Your task to perform on an android device: open app "Microsoft Outlook" (install if not already installed) and enter user name: "brand@gmail.com" and password: "persuasiveness" Image 0: 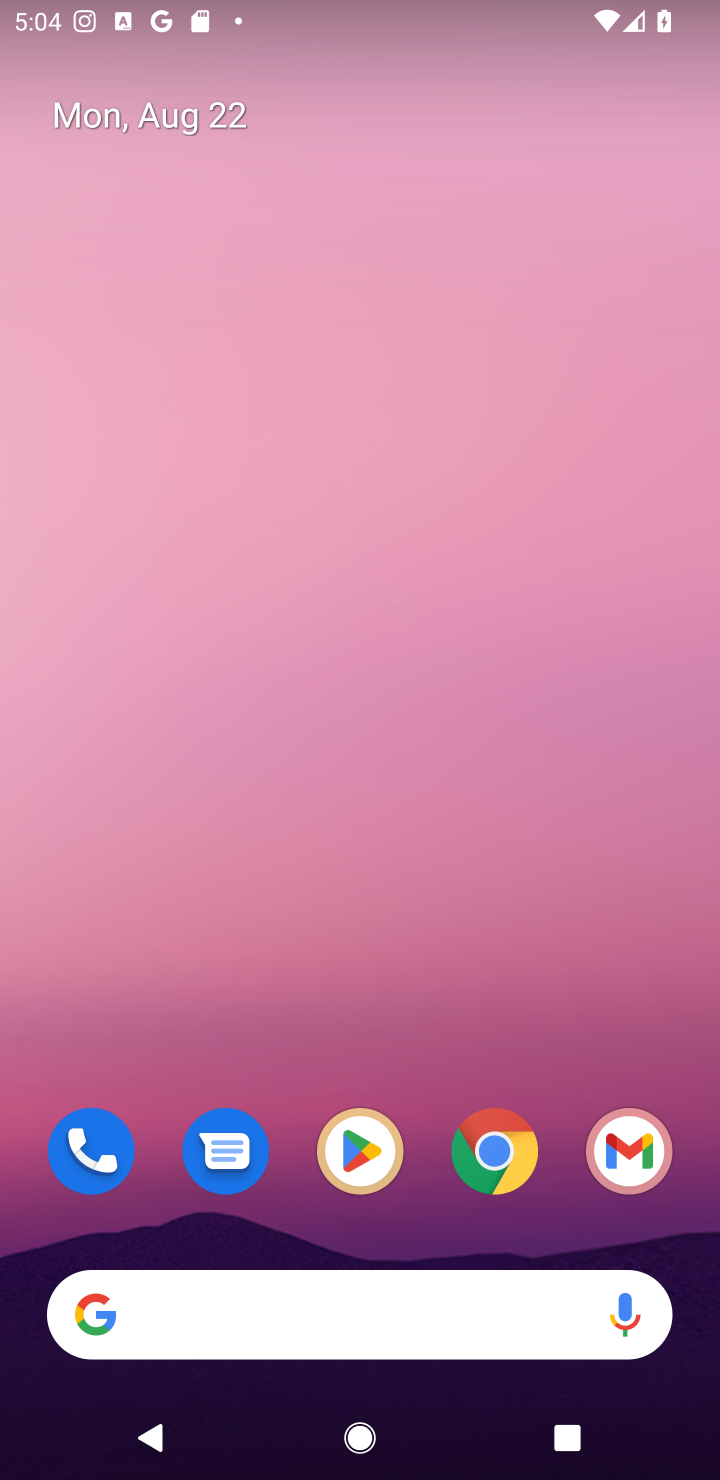
Step 0: click (371, 1167)
Your task to perform on an android device: open app "Microsoft Outlook" (install if not already installed) and enter user name: "brand@gmail.com" and password: "persuasiveness" Image 1: 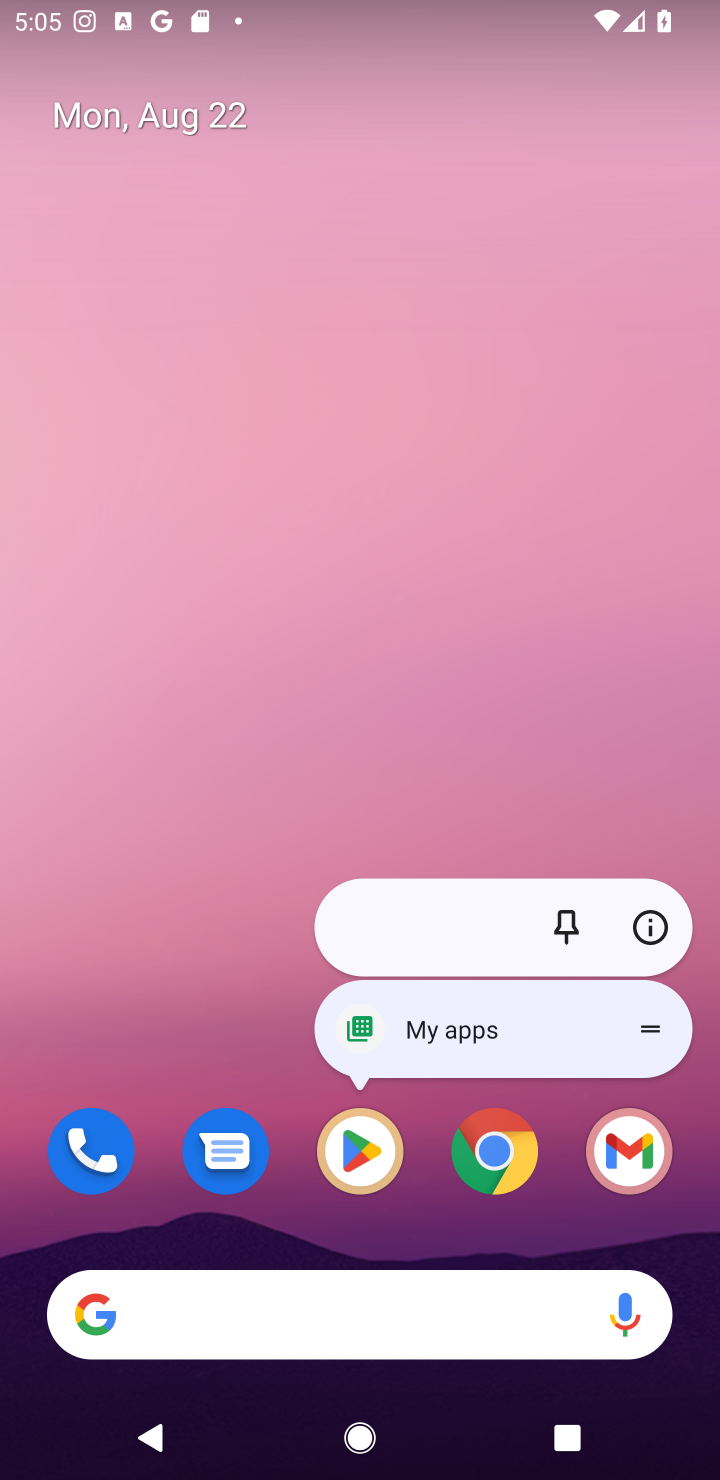
Step 1: click (358, 1163)
Your task to perform on an android device: open app "Microsoft Outlook" (install if not already installed) and enter user name: "brand@gmail.com" and password: "persuasiveness" Image 2: 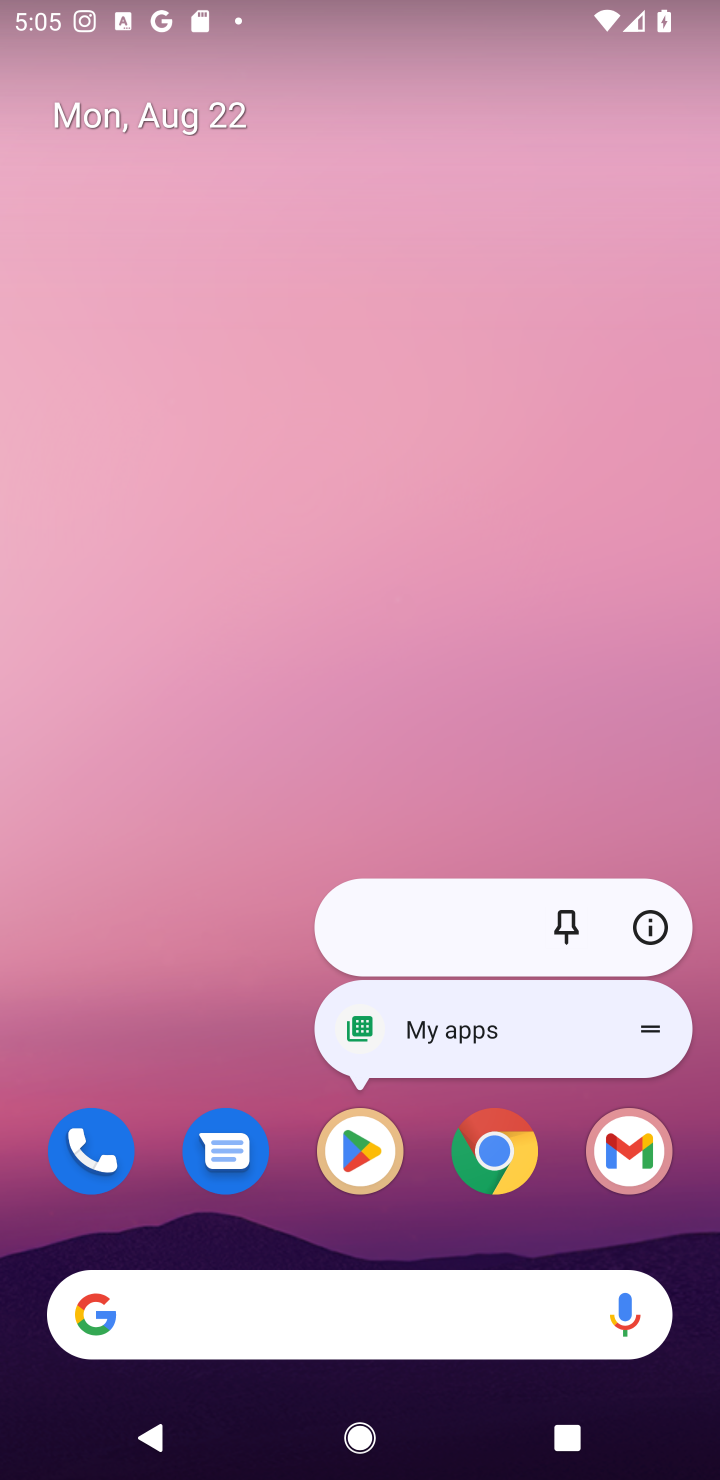
Step 2: click (358, 1167)
Your task to perform on an android device: open app "Microsoft Outlook" (install if not already installed) and enter user name: "brand@gmail.com" and password: "persuasiveness" Image 3: 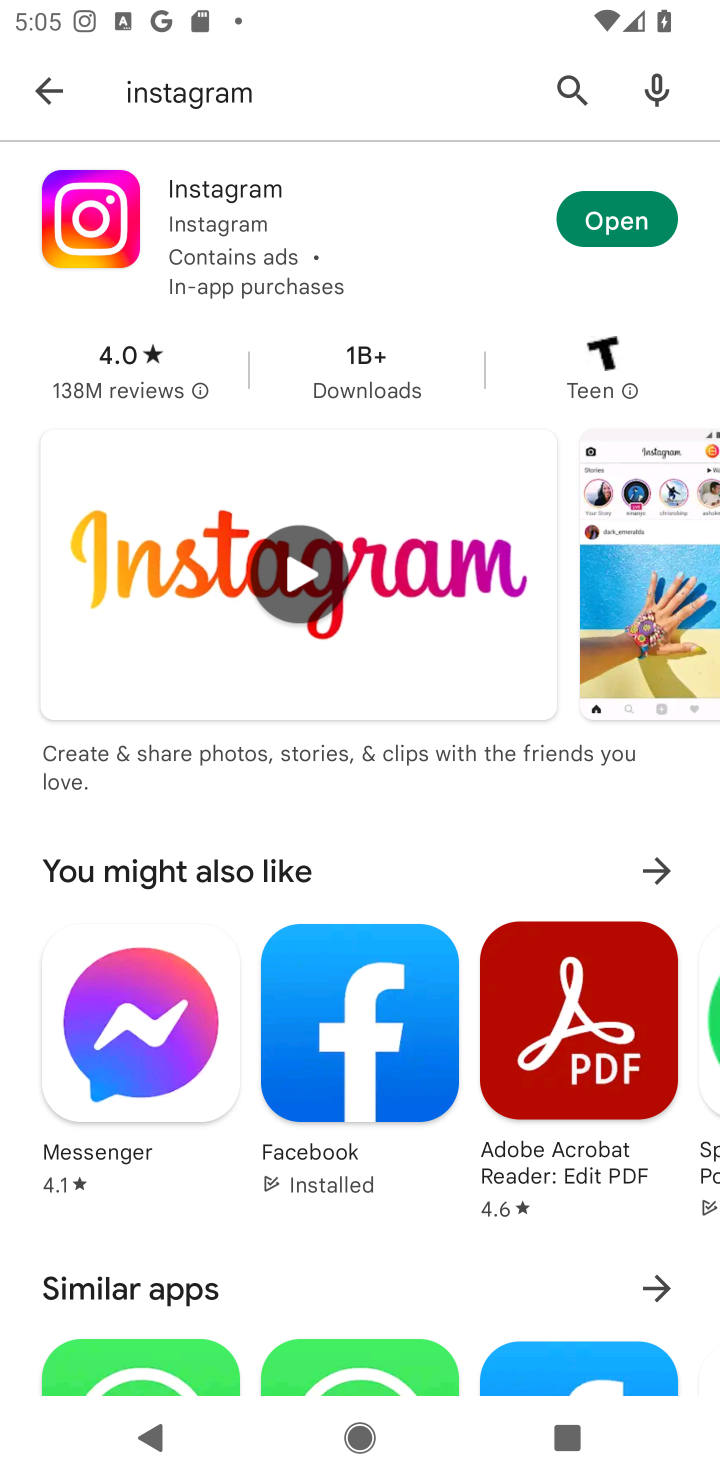
Step 3: click (561, 88)
Your task to perform on an android device: open app "Microsoft Outlook" (install if not already installed) and enter user name: "brand@gmail.com" and password: "persuasiveness" Image 4: 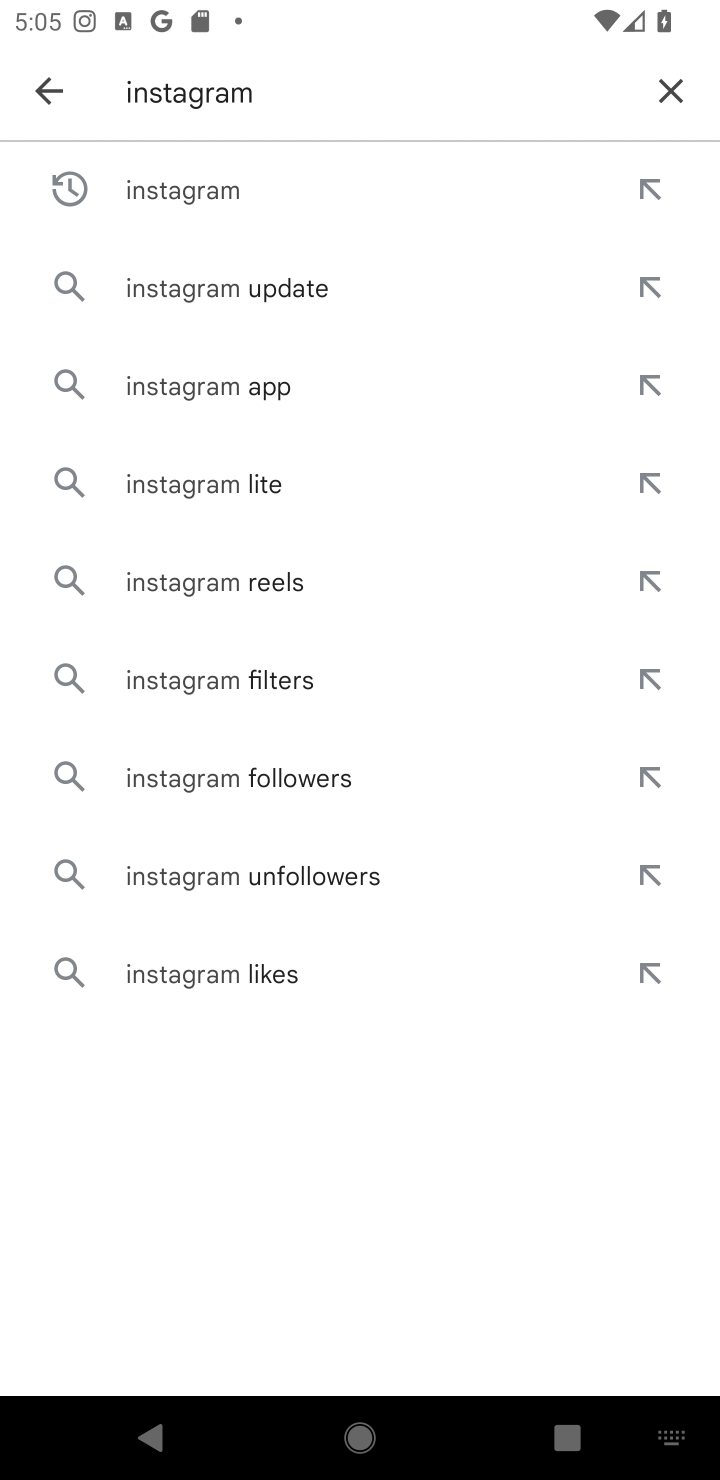
Step 4: click (664, 89)
Your task to perform on an android device: open app "Microsoft Outlook" (install if not already installed) and enter user name: "brand@gmail.com" and password: "persuasiveness" Image 5: 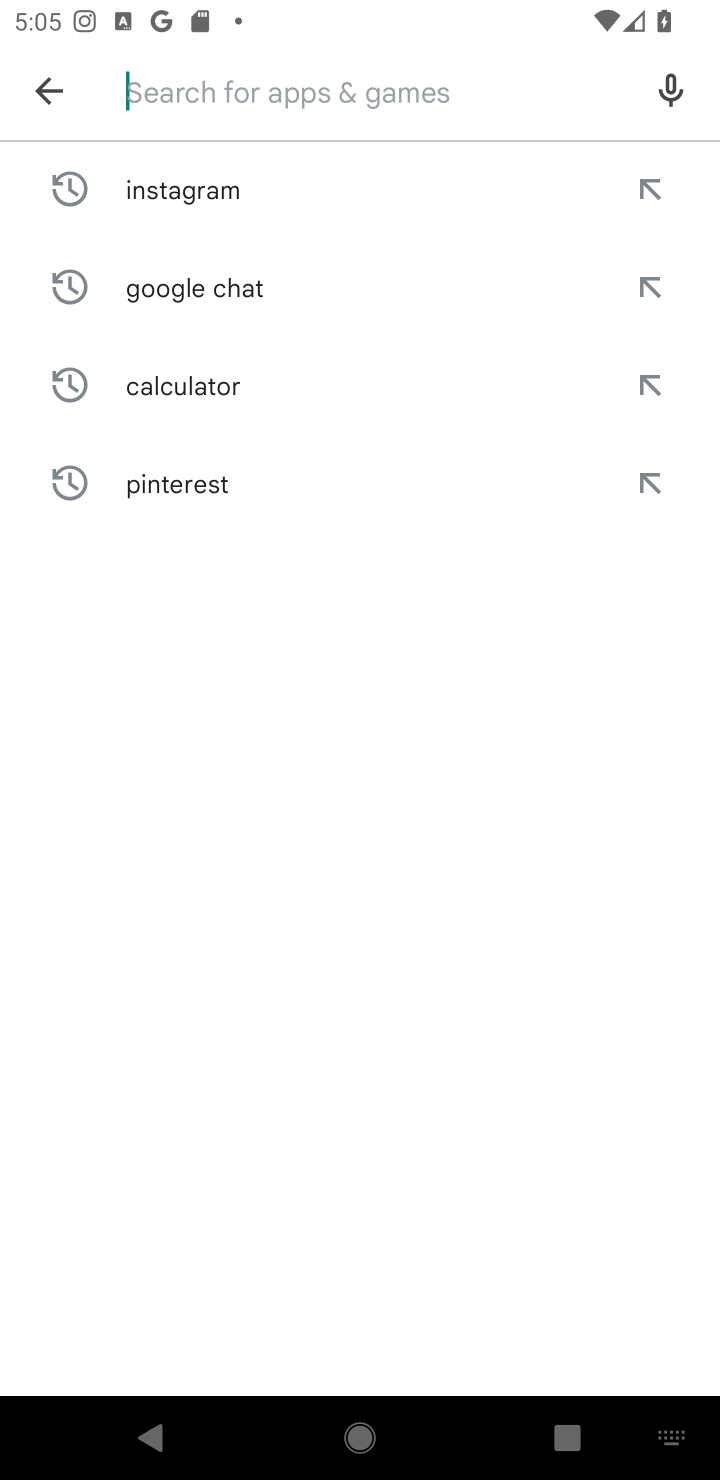
Step 5: type "Microsoft Outlook"
Your task to perform on an android device: open app "Microsoft Outlook" (install if not already installed) and enter user name: "brand@gmail.com" and password: "persuasiveness" Image 6: 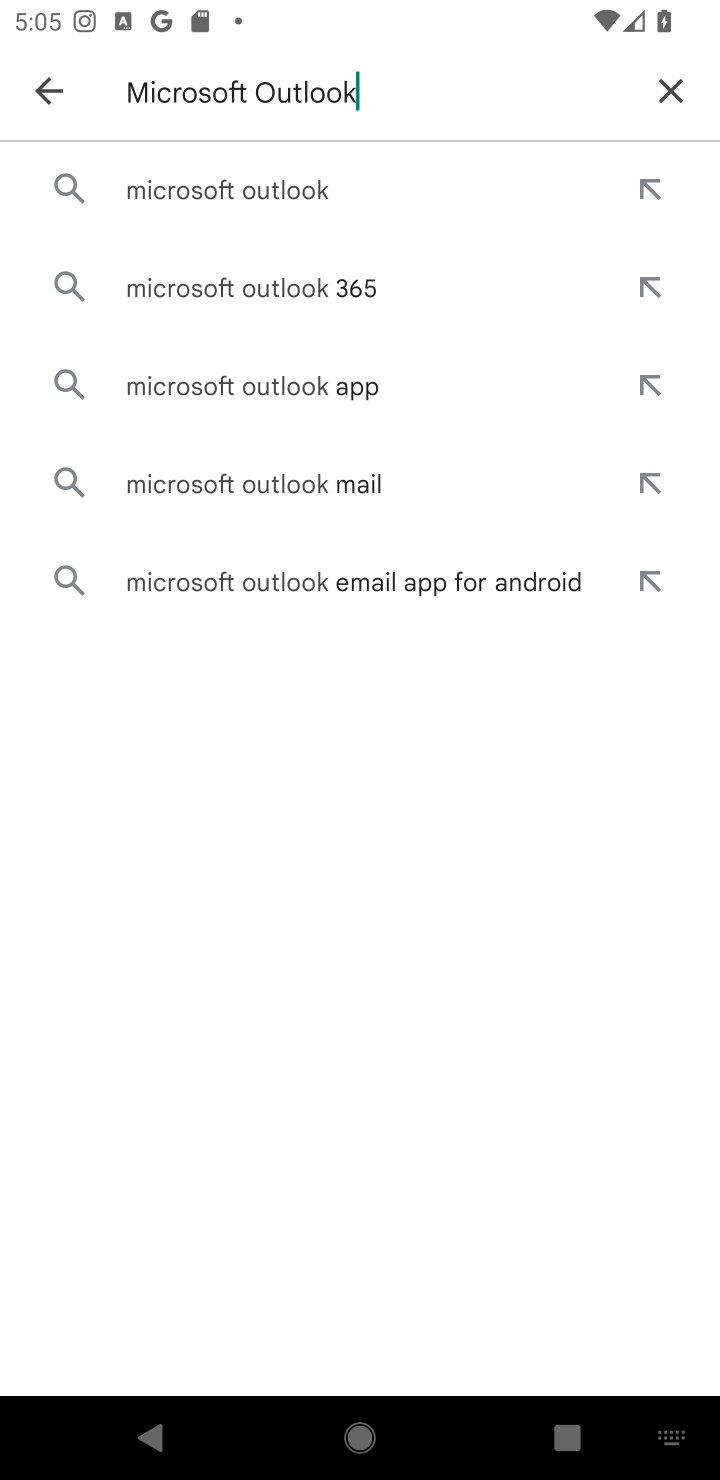
Step 6: click (173, 192)
Your task to perform on an android device: open app "Microsoft Outlook" (install if not already installed) and enter user name: "brand@gmail.com" and password: "persuasiveness" Image 7: 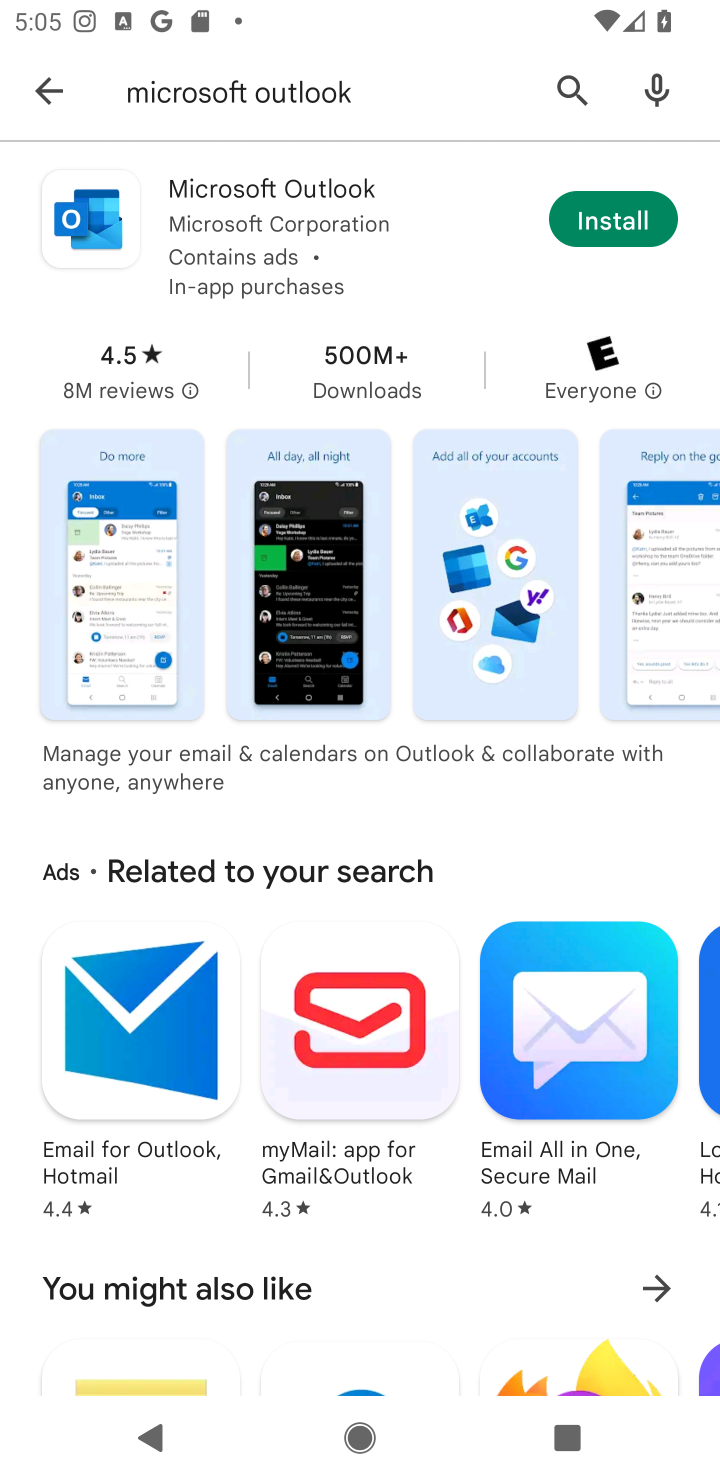
Step 7: click (592, 209)
Your task to perform on an android device: open app "Microsoft Outlook" (install if not already installed) and enter user name: "brand@gmail.com" and password: "persuasiveness" Image 8: 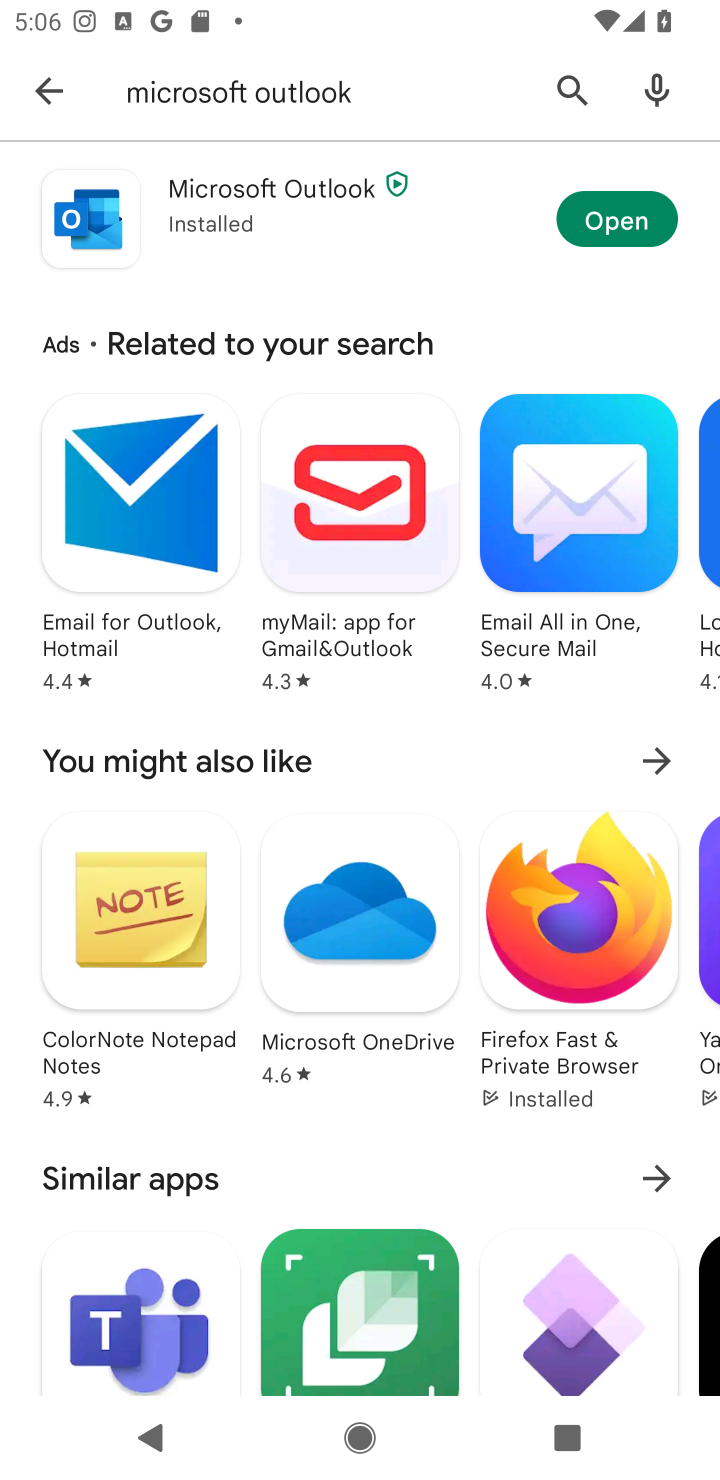
Step 8: click (619, 217)
Your task to perform on an android device: open app "Microsoft Outlook" (install if not already installed) and enter user name: "brand@gmail.com" and password: "persuasiveness" Image 9: 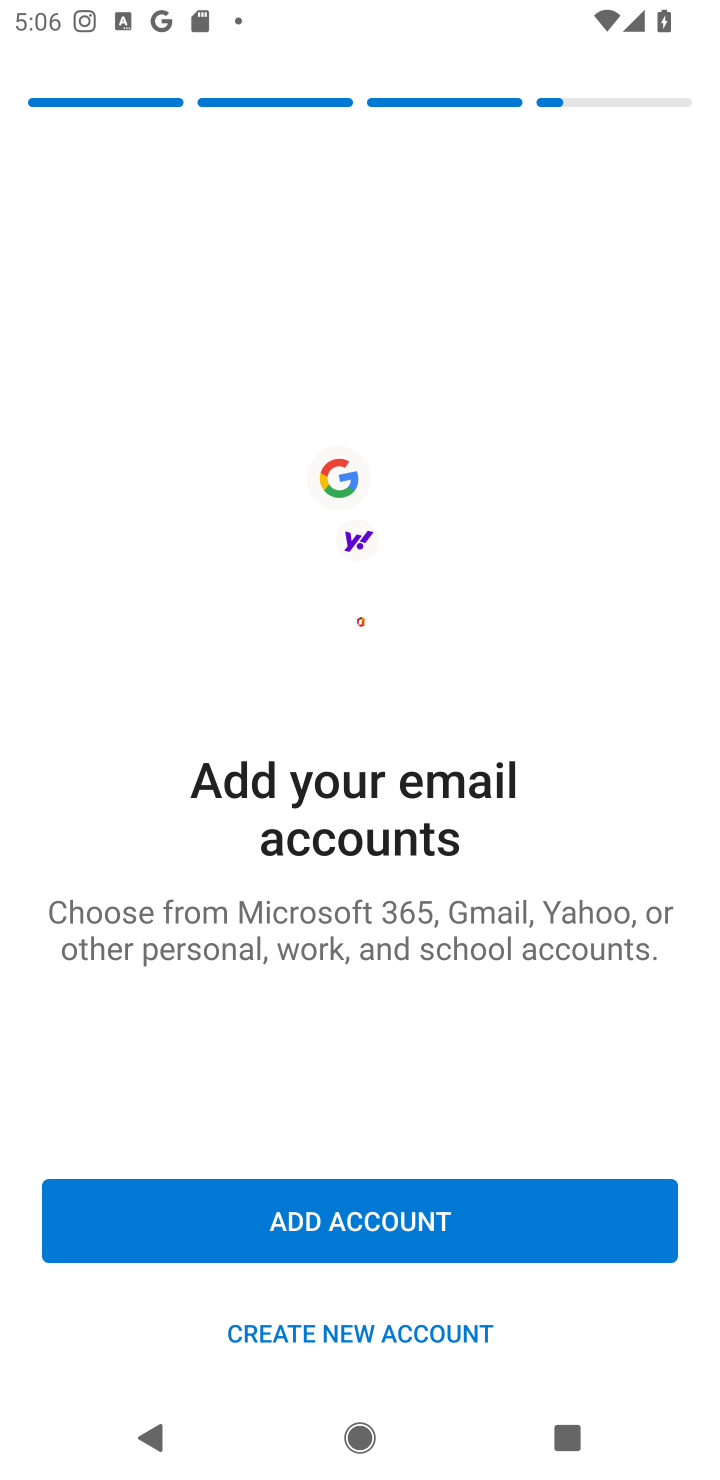
Step 9: click (384, 1338)
Your task to perform on an android device: open app "Microsoft Outlook" (install if not already installed) and enter user name: "brand@gmail.com" and password: "persuasiveness" Image 10: 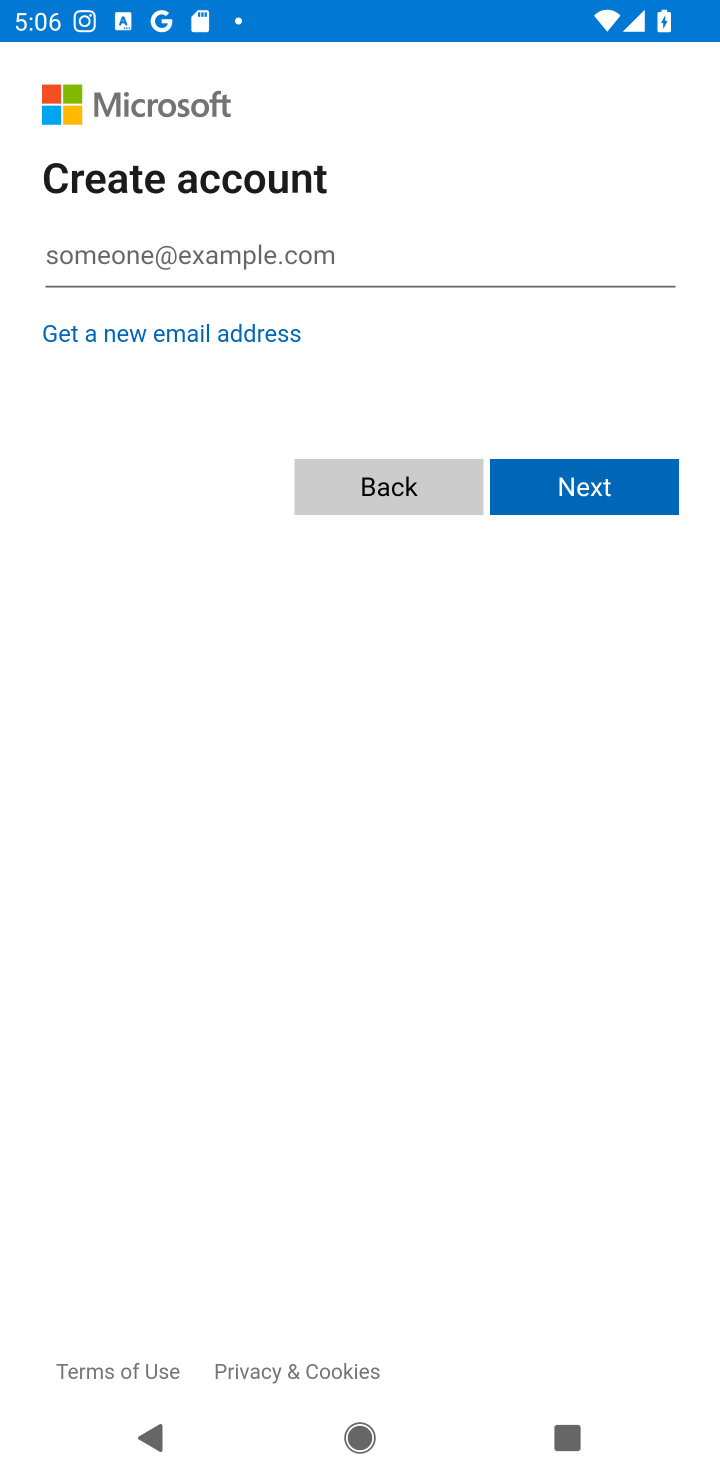
Step 10: click (127, 237)
Your task to perform on an android device: open app "Microsoft Outlook" (install if not already installed) and enter user name: "brand@gmail.com" and password: "persuasiveness" Image 11: 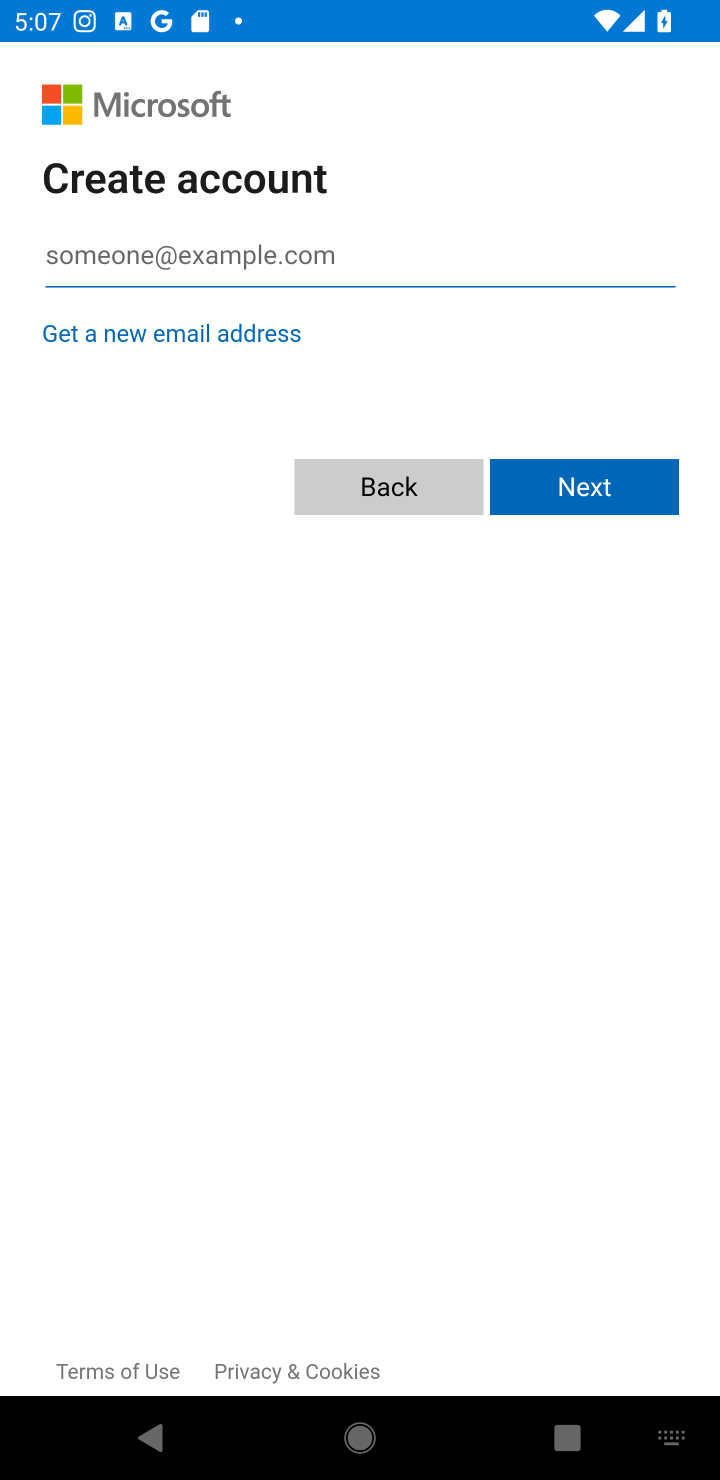
Step 11: type "brand@gmail.com"
Your task to perform on an android device: open app "Microsoft Outlook" (install if not already installed) and enter user name: "brand@gmail.com" and password: "persuasiveness" Image 12: 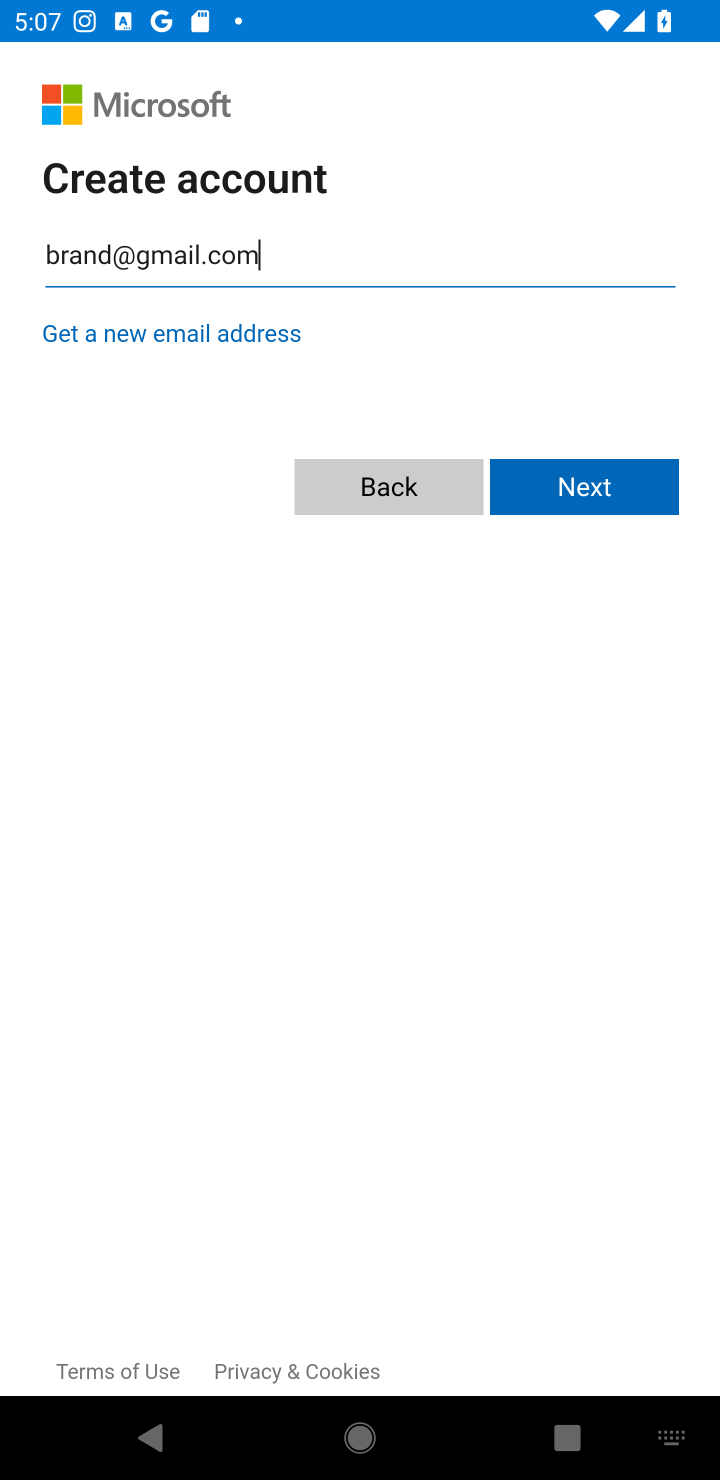
Step 12: click (581, 499)
Your task to perform on an android device: open app "Microsoft Outlook" (install if not already installed) and enter user name: "brand@gmail.com" and password: "persuasiveness" Image 13: 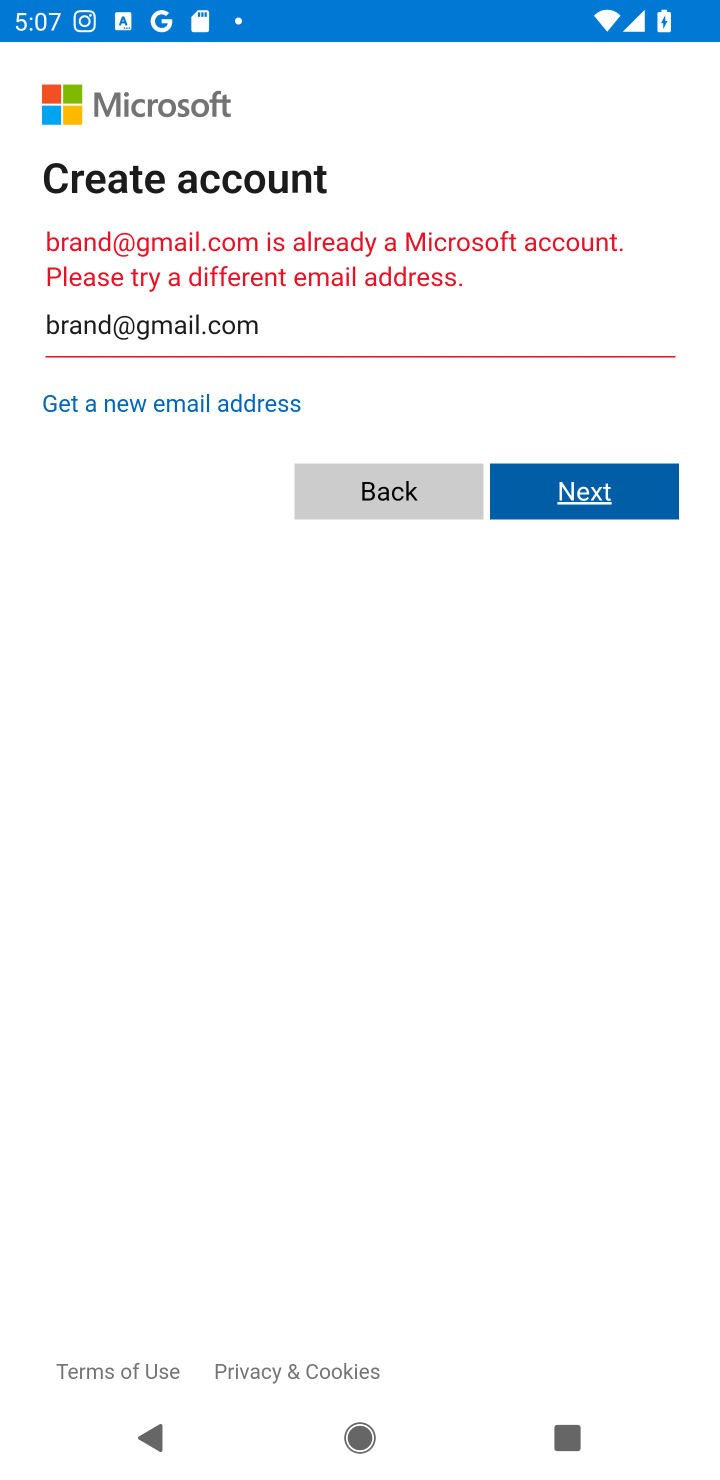
Step 13: task complete